Your task to perform on an android device: Search for the new Nike Air Jordan 33 on Nike.com Image 0: 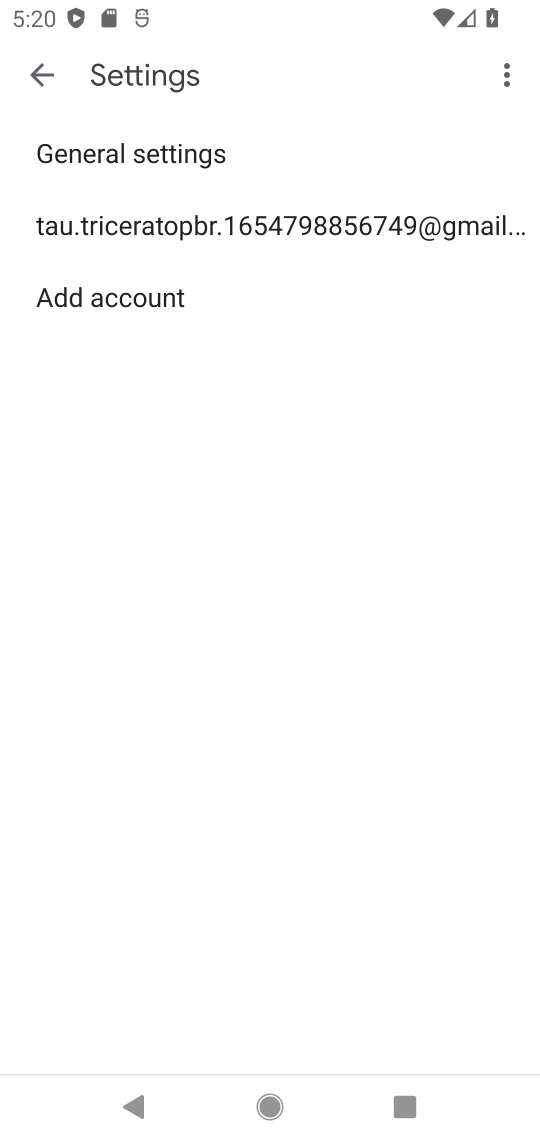
Step 0: press home button
Your task to perform on an android device: Search for the new Nike Air Jordan 33 on Nike.com Image 1: 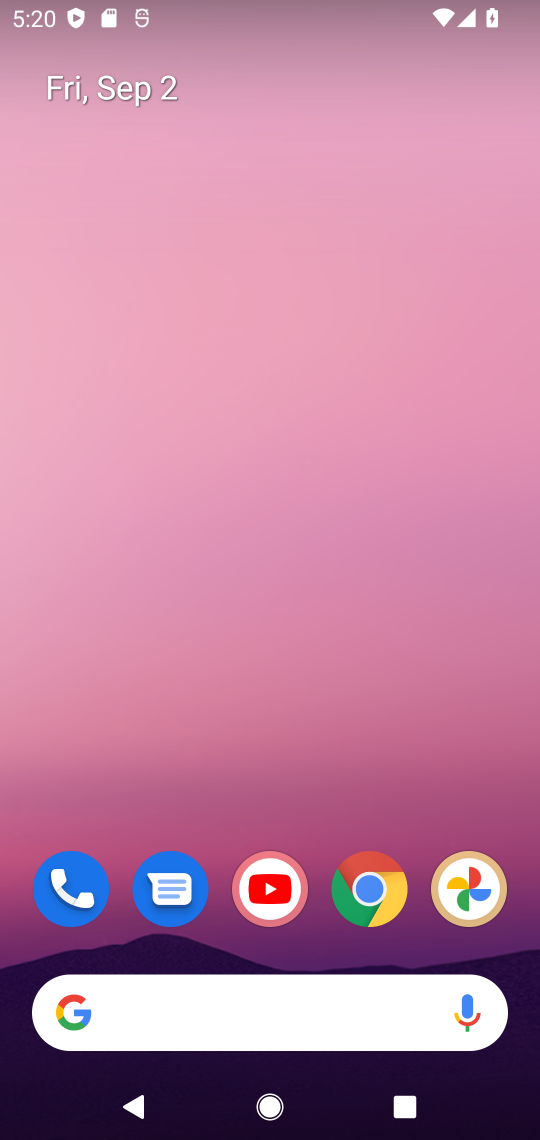
Step 1: click (353, 915)
Your task to perform on an android device: Search for the new Nike Air Jordan 33 on Nike.com Image 2: 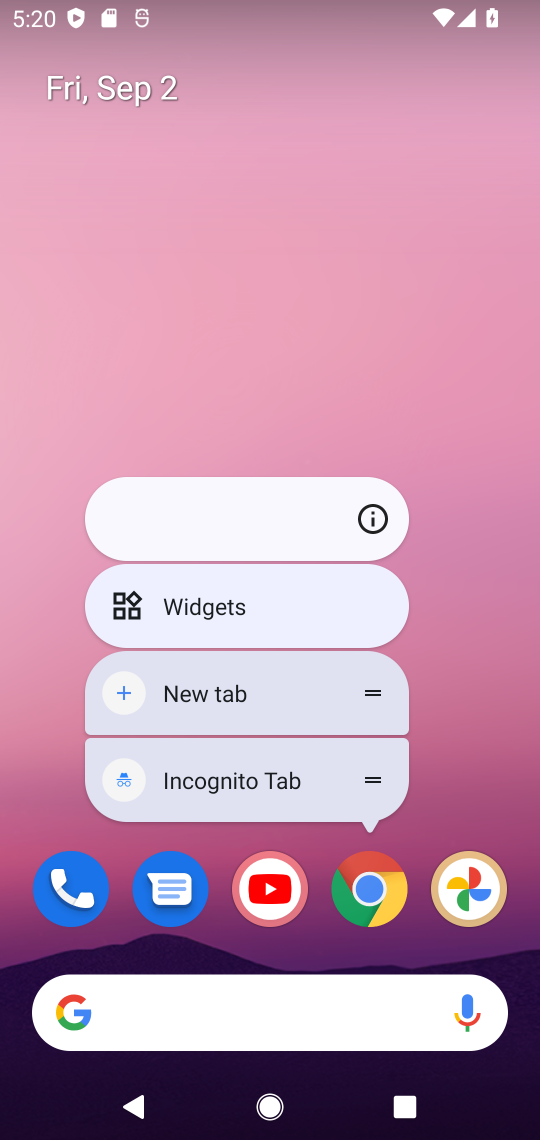
Step 2: click (369, 874)
Your task to perform on an android device: Search for the new Nike Air Jordan 33 on Nike.com Image 3: 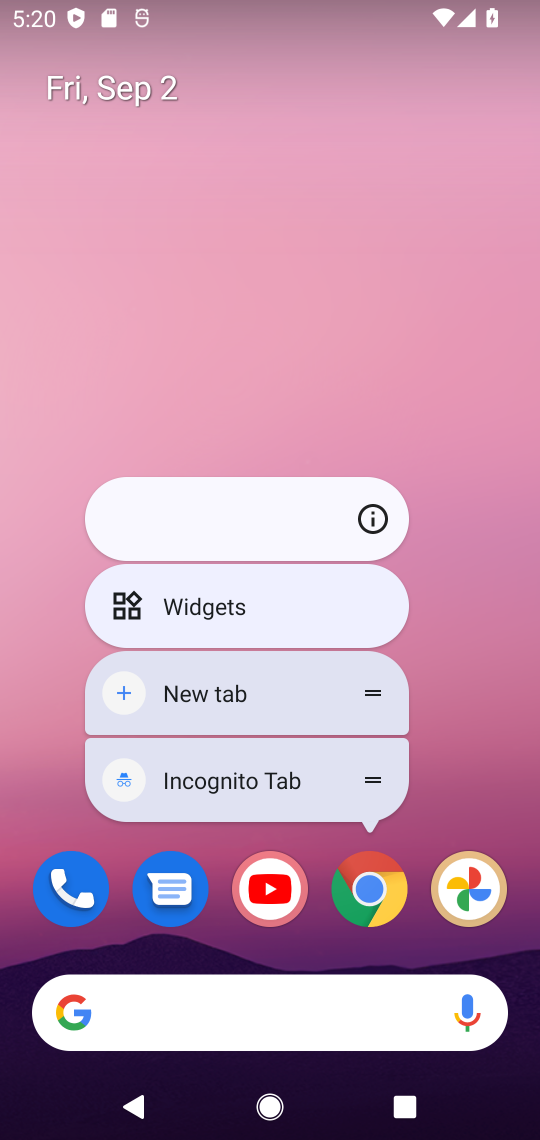
Step 3: click (355, 911)
Your task to perform on an android device: Search for the new Nike Air Jordan 33 on Nike.com Image 4: 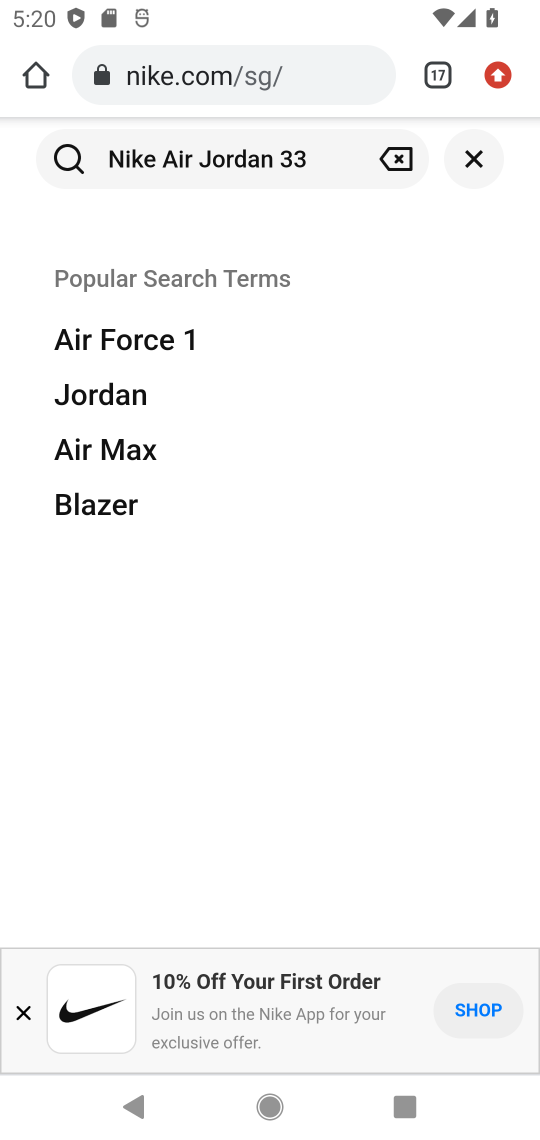
Step 4: click (449, 87)
Your task to perform on an android device: Search for the new Nike Air Jordan 33 on Nike.com Image 5: 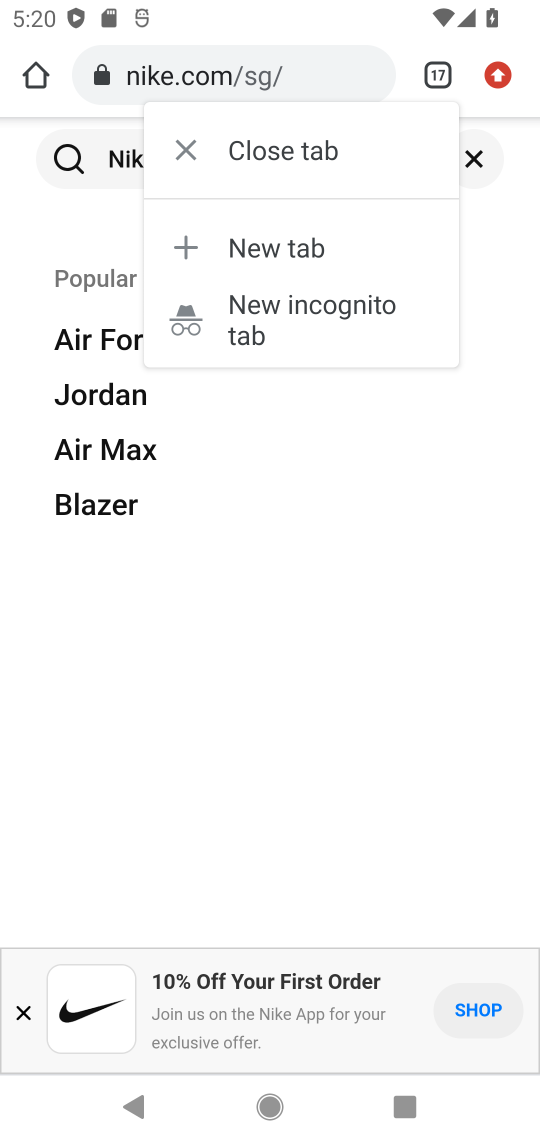
Step 5: click (284, 267)
Your task to perform on an android device: Search for the new Nike Air Jordan 33 on Nike.com Image 6: 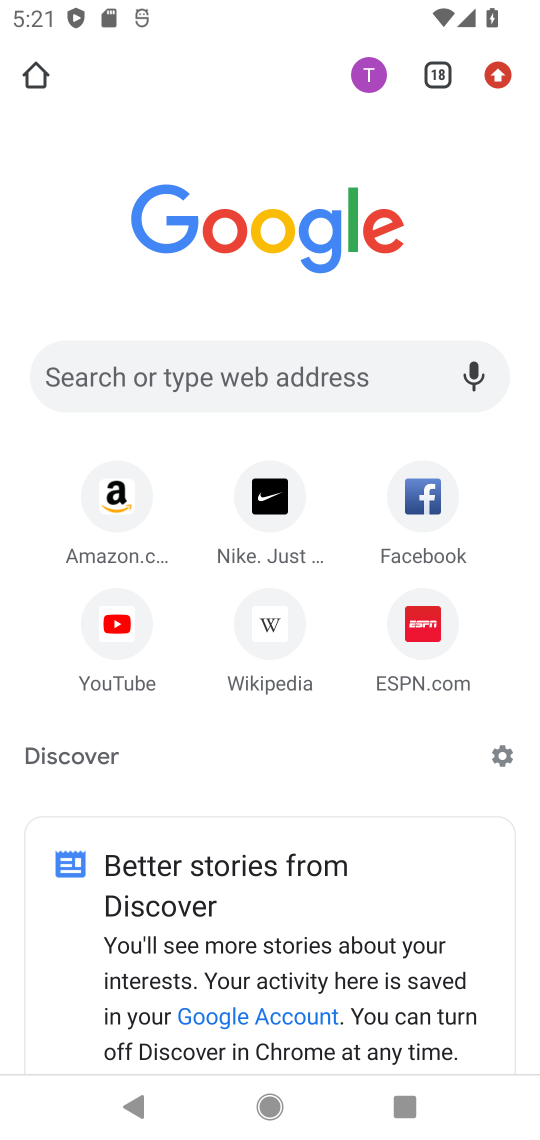
Step 6: click (204, 369)
Your task to perform on an android device: Search for the new Nike Air Jordan 33 on Nike.com Image 7: 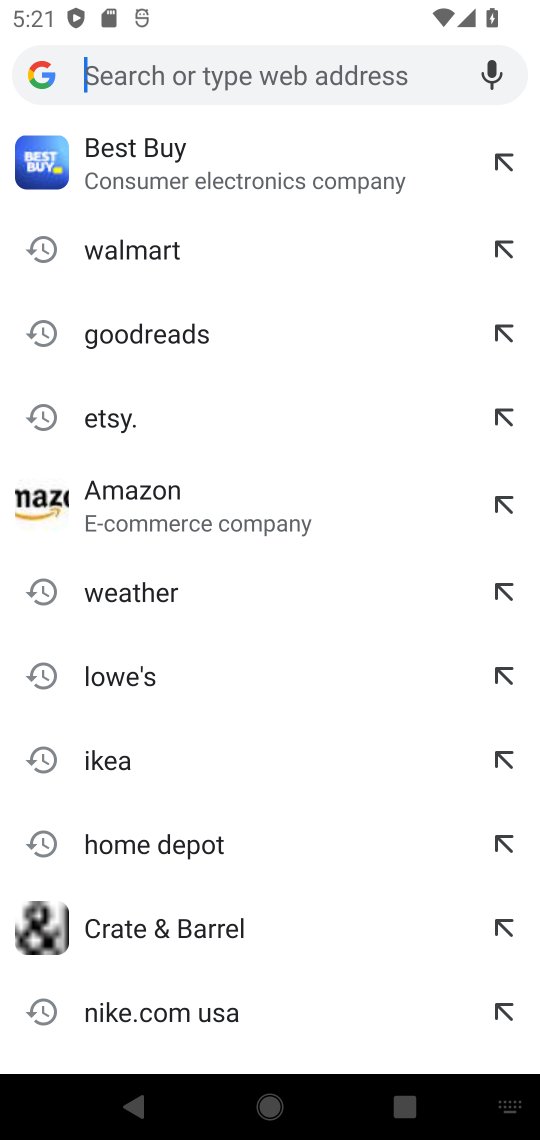
Step 7: type "Nike.com"
Your task to perform on an android device: Search for the new Nike Air Jordan 33 on Nike.com Image 8: 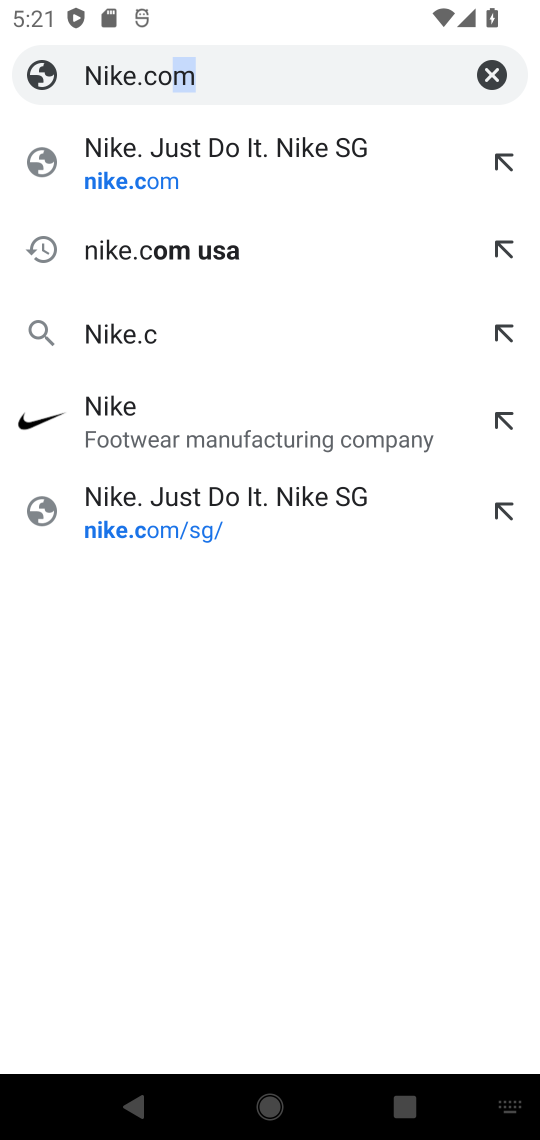
Step 8: type ""
Your task to perform on an android device: Search for the new Nike Air Jordan 33 on Nike.com Image 9: 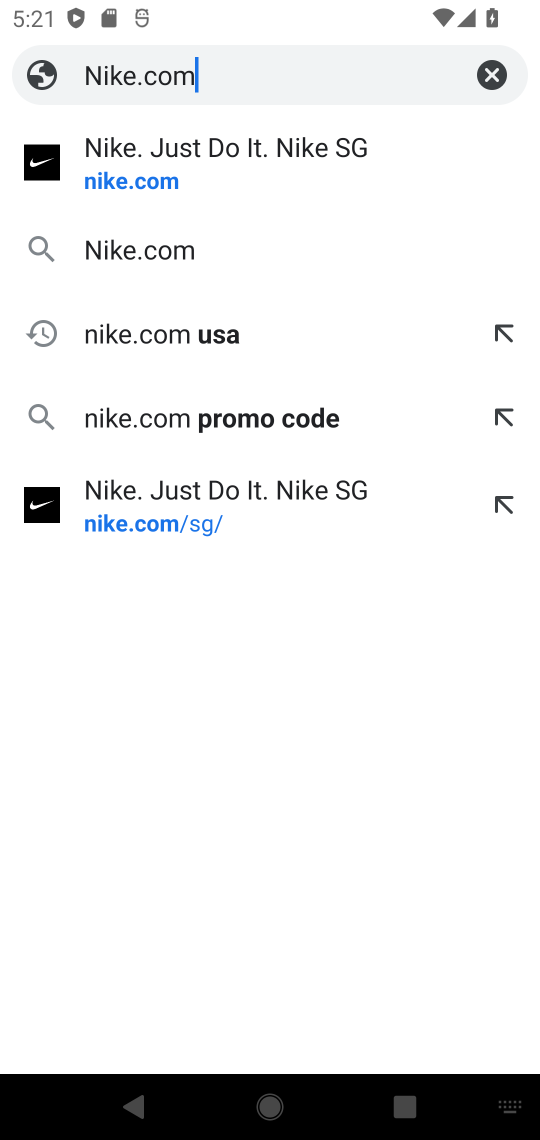
Step 9: click (165, 262)
Your task to perform on an android device: Search for the new Nike Air Jordan 33 on Nike.com Image 10: 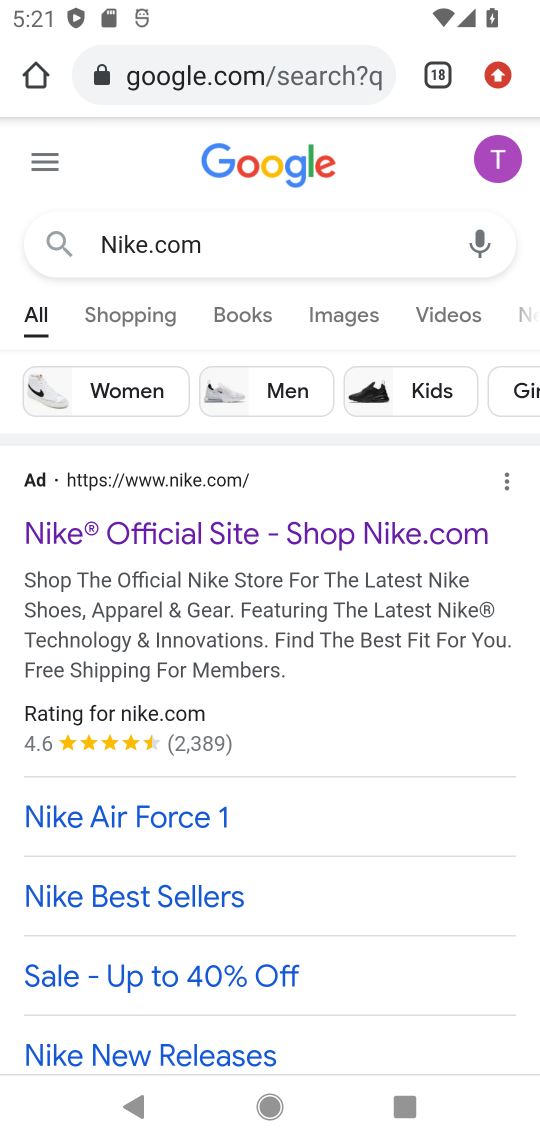
Step 10: drag from (277, 833) to (365, 464)
Your task to perform on an android device: Search for the new Nike Air Jordan 33 on Nike.com Image 11: 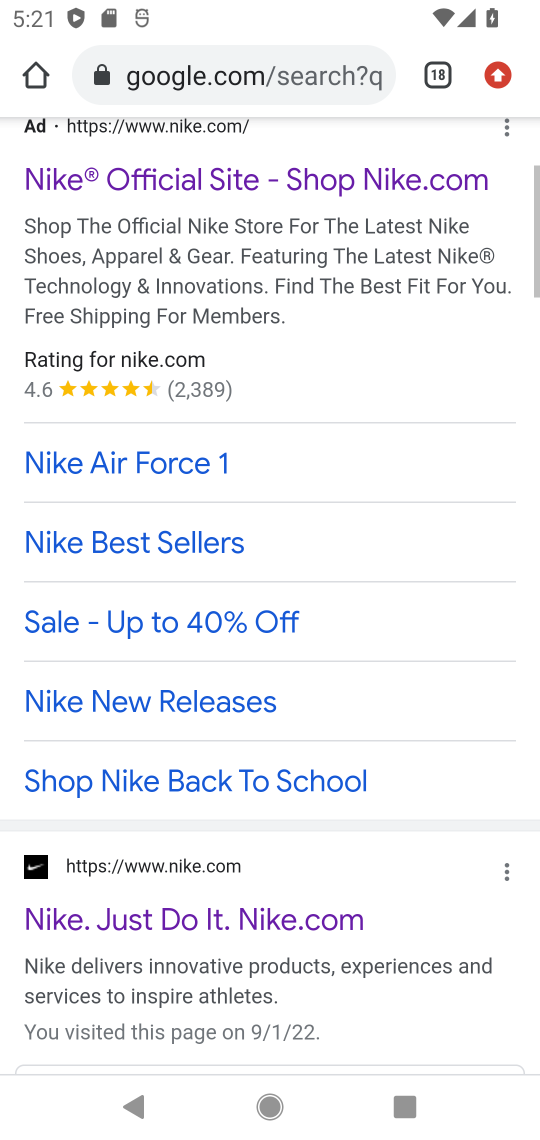
Step 11: drag from (319, 801) to (368, 347)
Your task to perform on an android device: Search for the new Nike Air Jordan 33 on Nike.com Image 12: 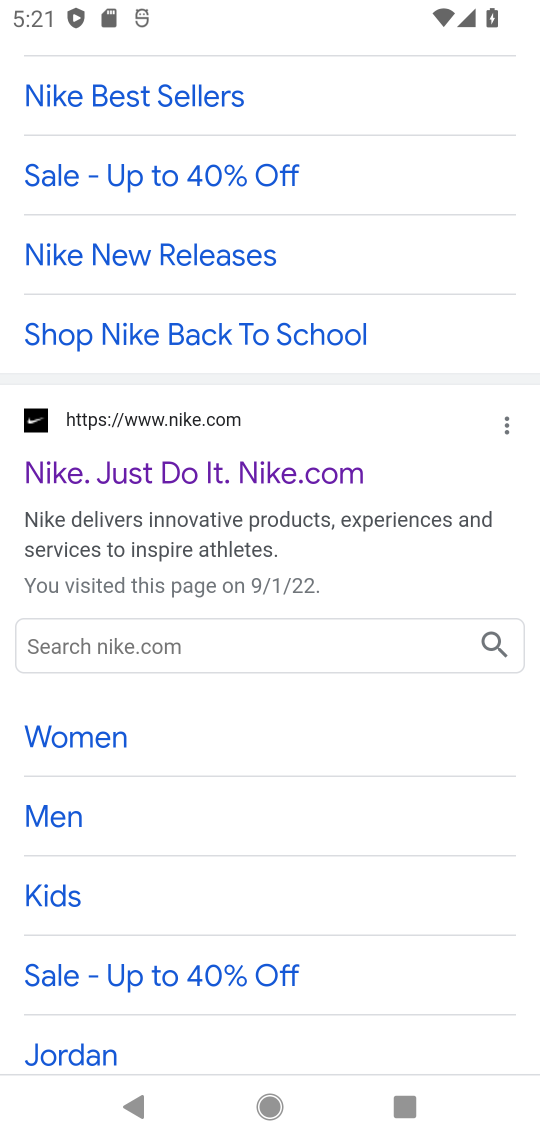
Step 12: click (232, 485)
Your task to perform on an android device: Search for the new Nike Air Jordan 33 on Nike.com Image 13: 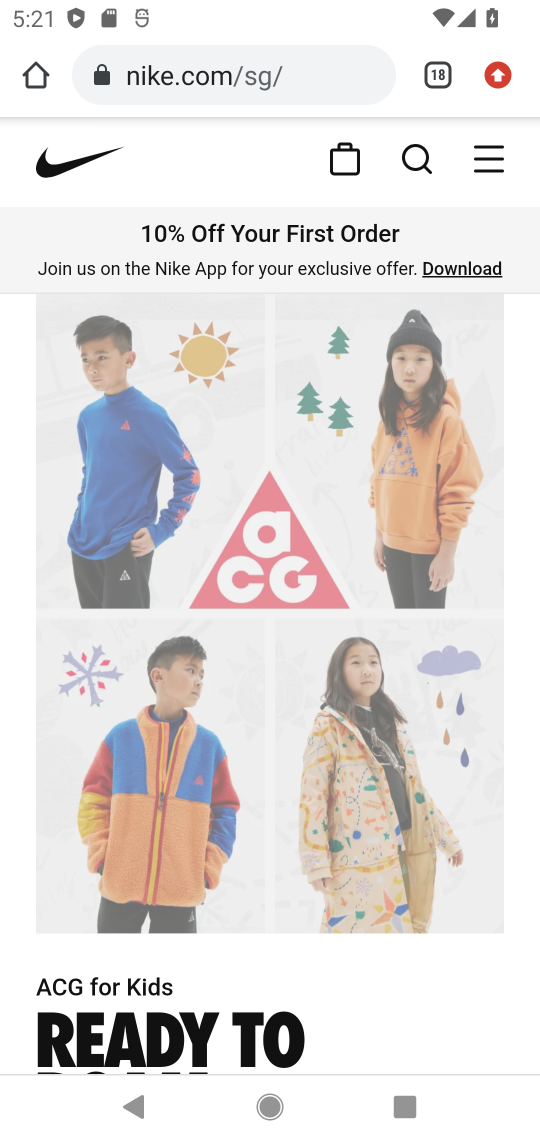
Step 13: click (428, 155)
Your task to perform on an android device: Search for the new Nike Air Jordan 33 on Nike.com Image 14: 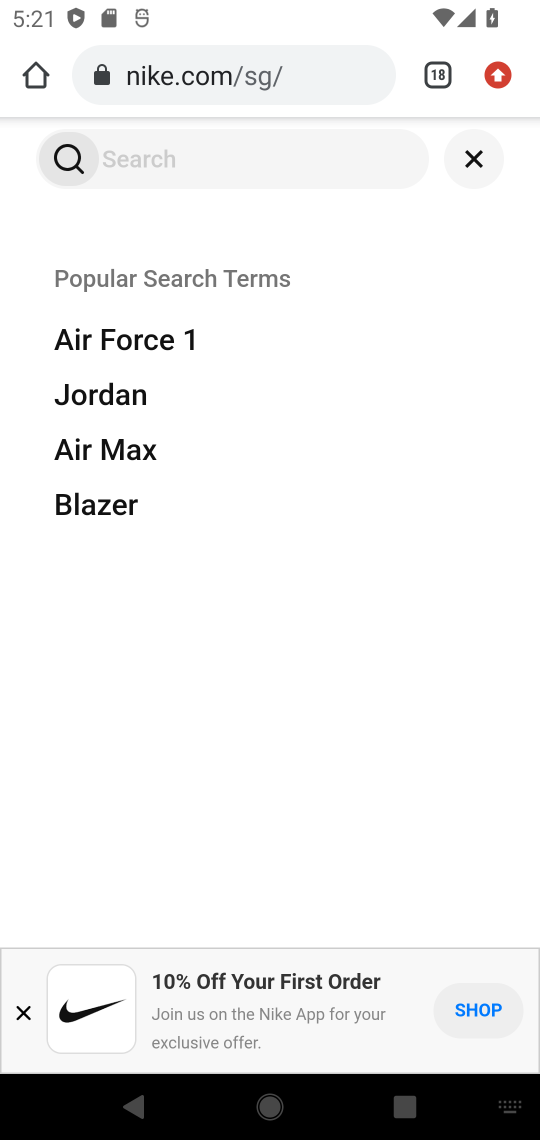
Step 14: type "Nike Air Jordan 33"
Your task to perform on an android device: Search for the new Nike Air Jordan 33 on Nike.com Image 15: 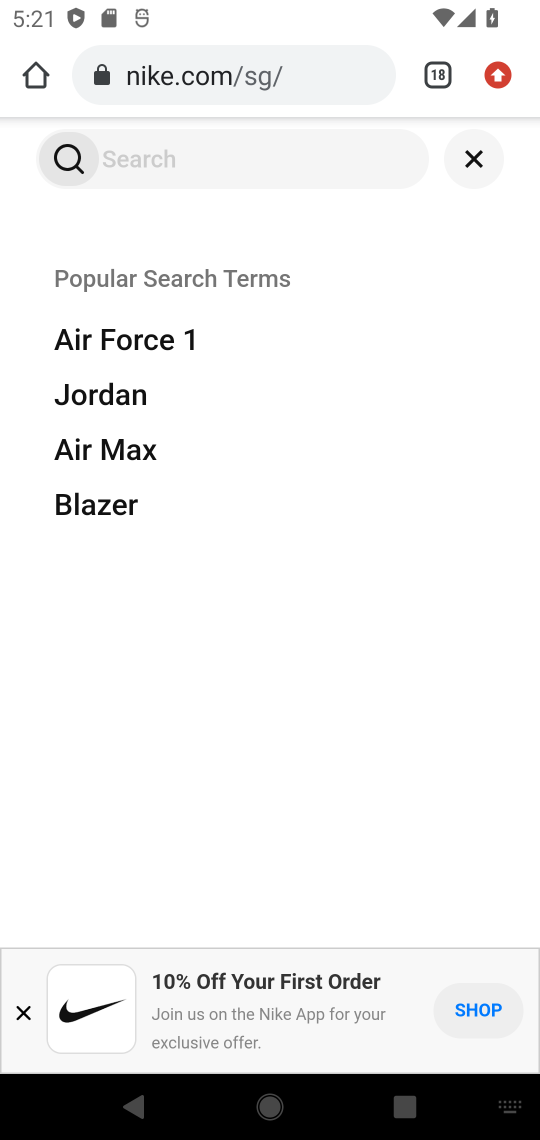
Step 15: type ""
Your task to perform on an android device: Search for the new Nike Air Jordan 33 on Nike.com Image 16: 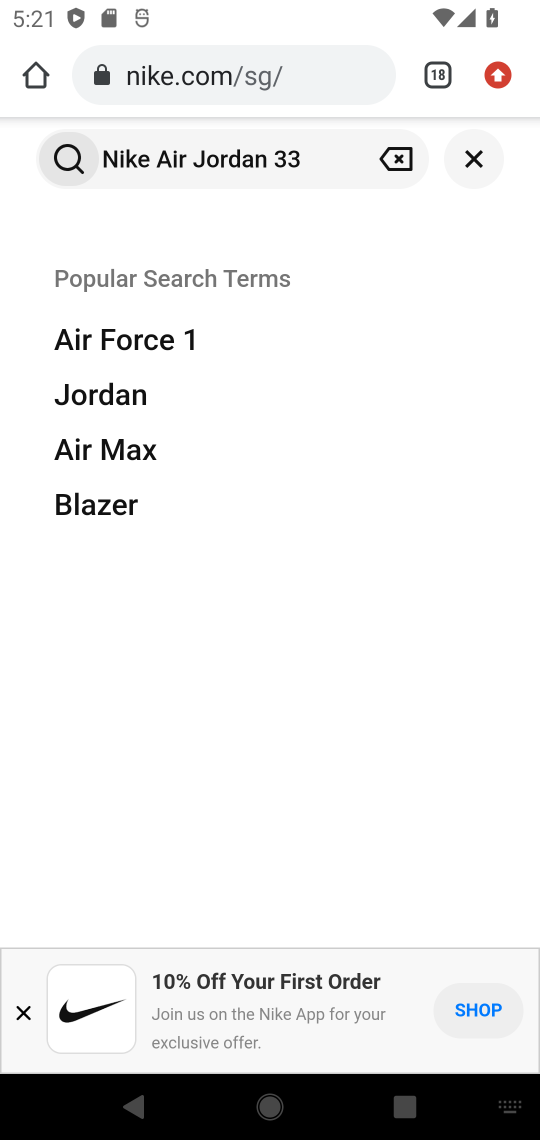
Step 16: click (61, 152)
Your task to perform on an android device: Search for the new Nike Air Jordan 33 on Nike.com Image 17: 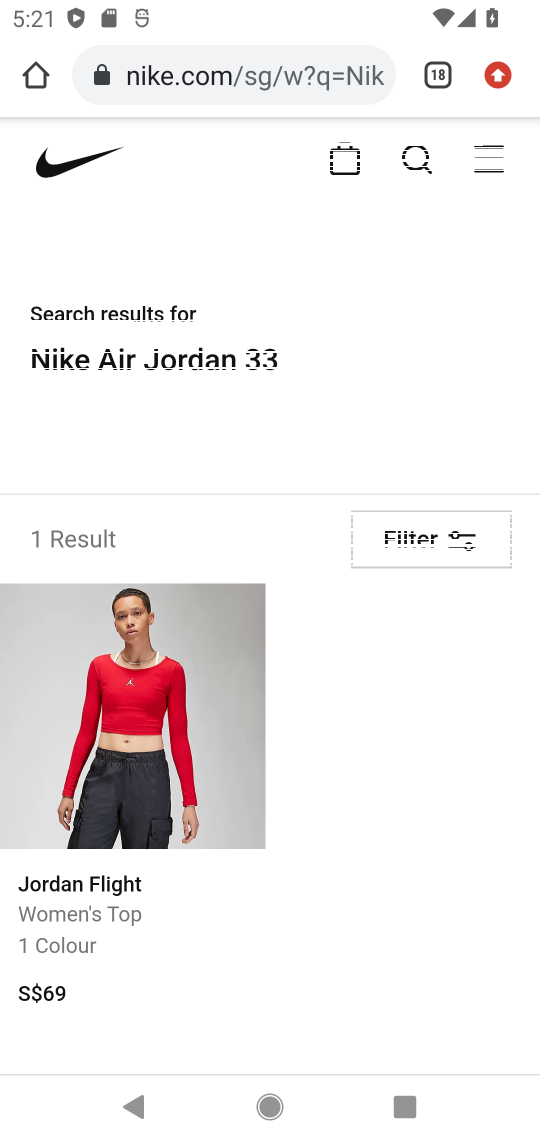
Step 17: click (382, 319)
Your task to perform on an android device: Search for the new Nike Air Jordan 33 on Nike.com Image 18: 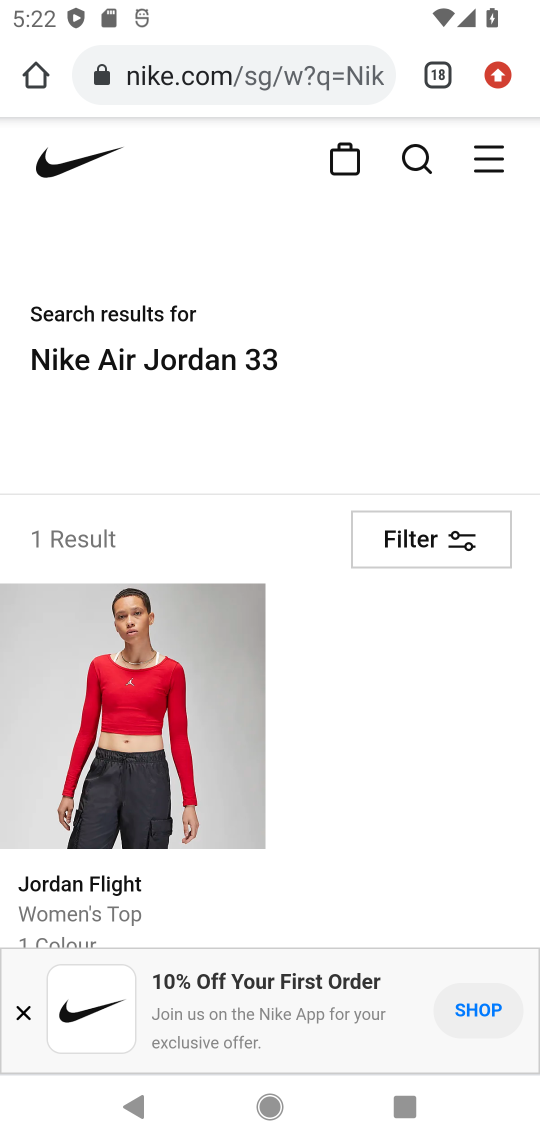
Step 18: task complete